Your task to perform on an android device: delete a single message in the gmail app Image 0: 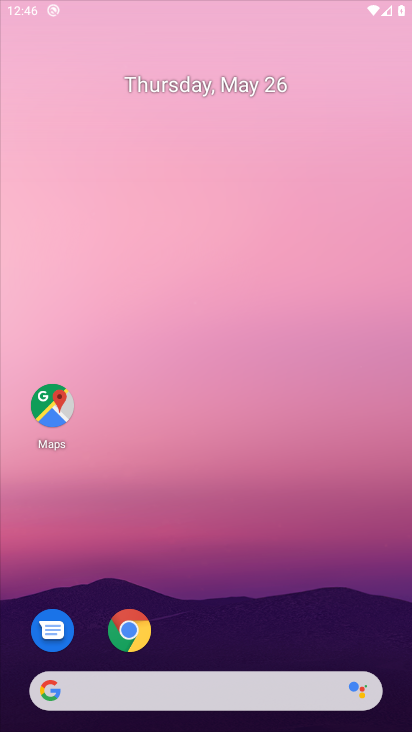
Step 0: click (246, 135)
Your task to perform on an android device: delete a single message in the gmail app Image 1: 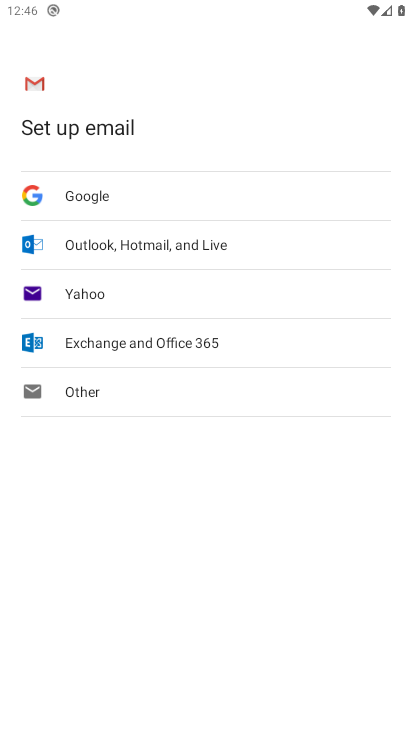
Step 1: press home button
Your task to perform on an android device: delete a single message in the gmail app Image 2: 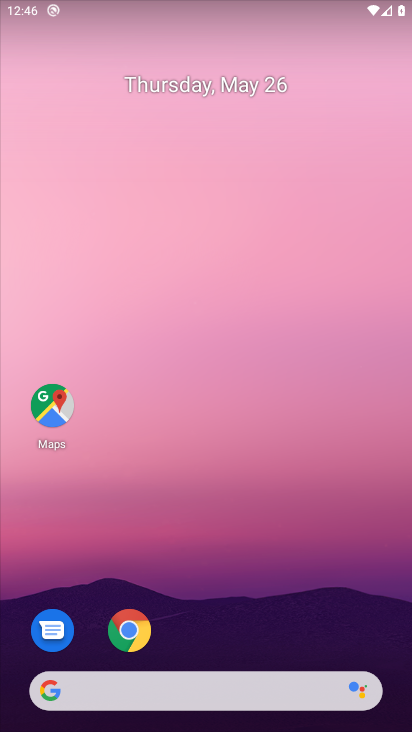
Step 2: drag from (231, 632) to (262, 231)
Your task to perform on an android device: delete a single message in the gmail app Image 3: 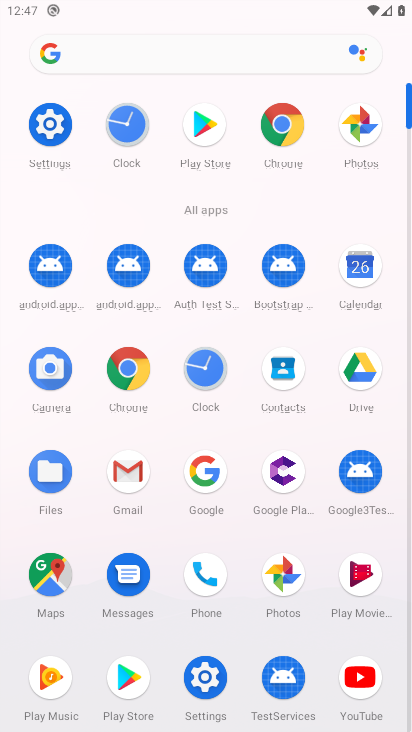
Step 3: click (130, 467)
Your task to perform on an android device: delete a single message in the gmail app Image 4: 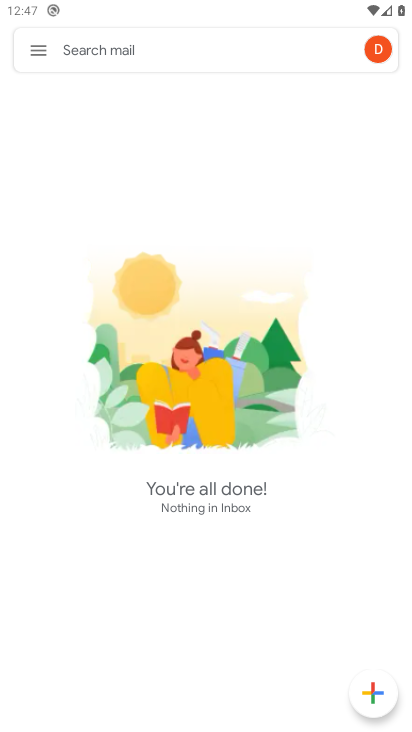
Step 4: task complete